Your task to perform on an android device: turn on translation in the chrome app Image 0: 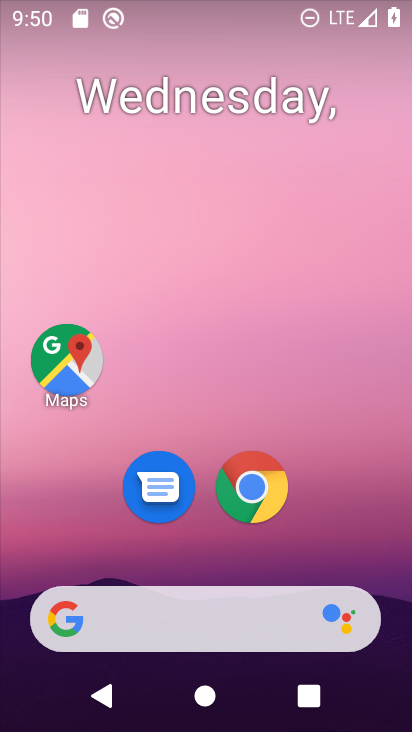
Step 0: press home button
Your task to perform on an android device: turn on translation in the chrome app Image 1: 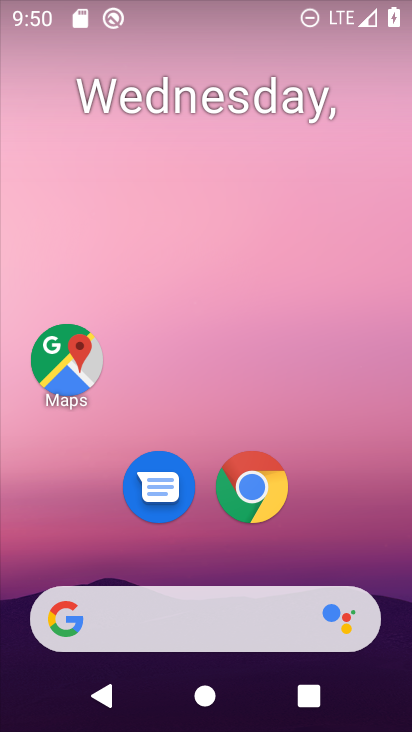
Step 1: click (256, 483)
Your task to perform on an android device: turn on translation in the chrome app Image 2: 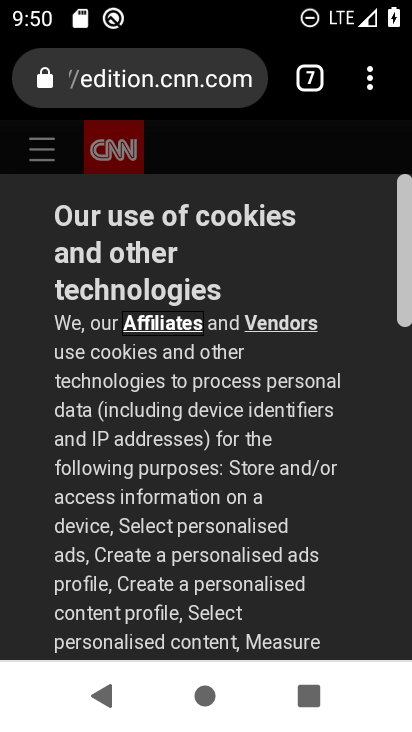
Step 2: click (370, 76)
Your task to perform on an android device: turn on translation in the chrome app Image 3: 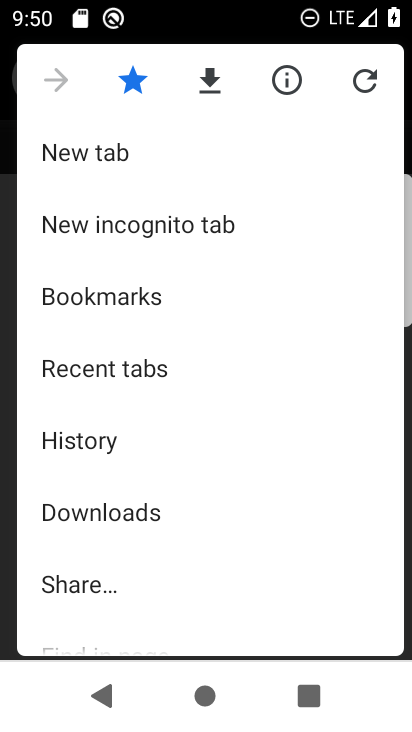
Step 3: drag from (193, 498) to (132, 182)
Your task to perform on an android device: turn on translation in the chrome app Image 4: 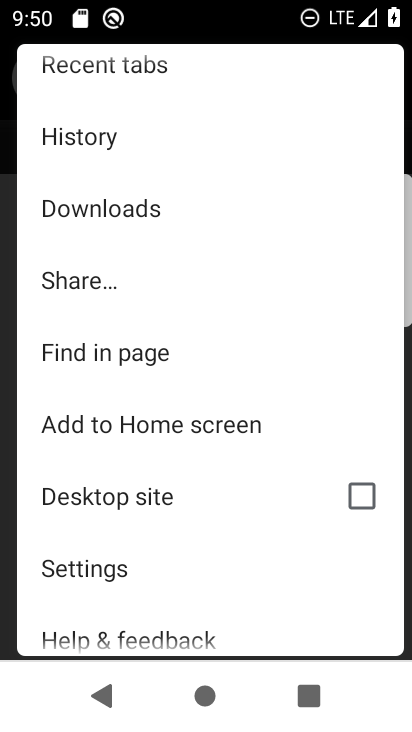
Step 4: drag from (224, 529) to (162, 320)
Your task to perform on an android device: turn on translation in the chrome app Image 5: 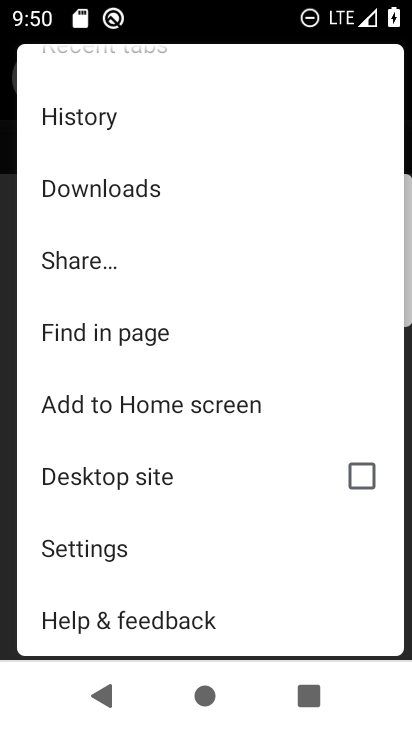
Step 5: click (92, 549)
Your task to perform on an android device: turn on translation in the chrome app Image 6: 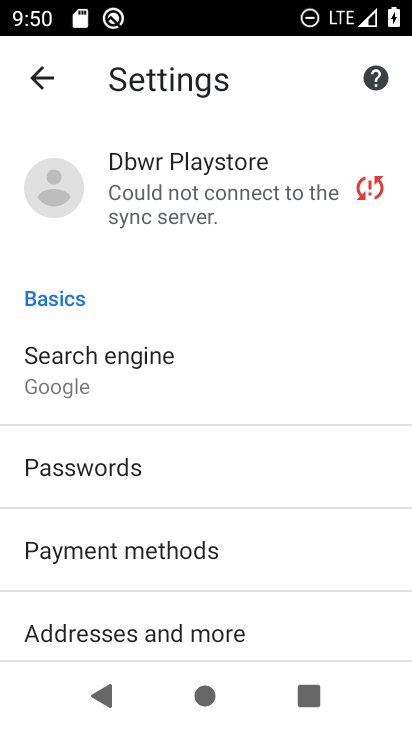
Step 6: drag from (258, 516) to (128, 134)
Your task to perform on an android device: turn on translation in the chrome app Image 7: 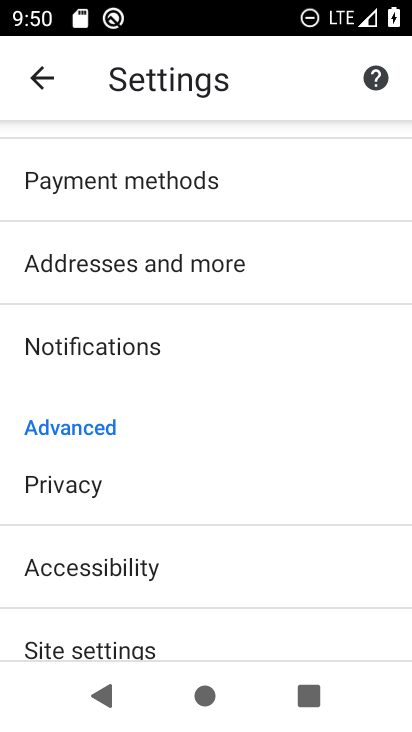
Step 7: drag from (194, 487) to (134, 174)
Your task to perform on an android device: turn on translation in the chrome app Image 8: 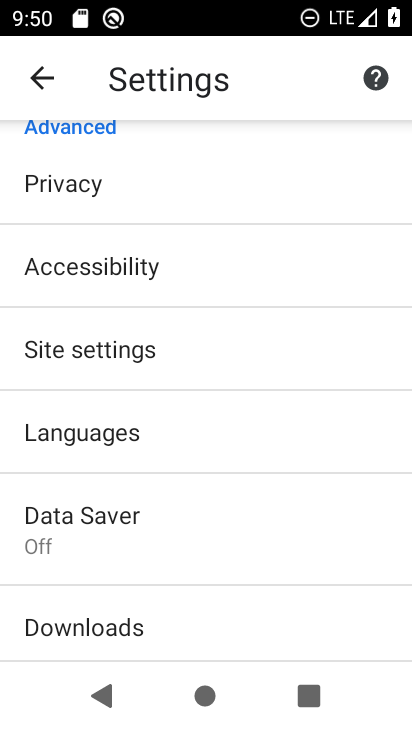
Step 8: click (102, 433)
Your task to perform on an android device: turn on translation in the chrome app Image 9: 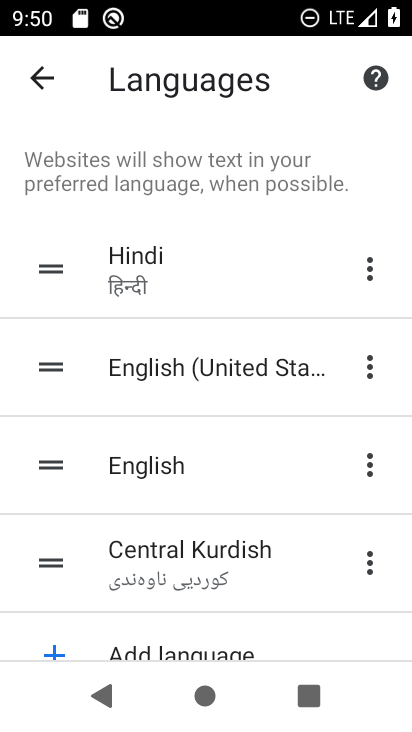
Step 9: task complete